Your task to perform on an android device: What's the weather going to be this weekend? Image 0: 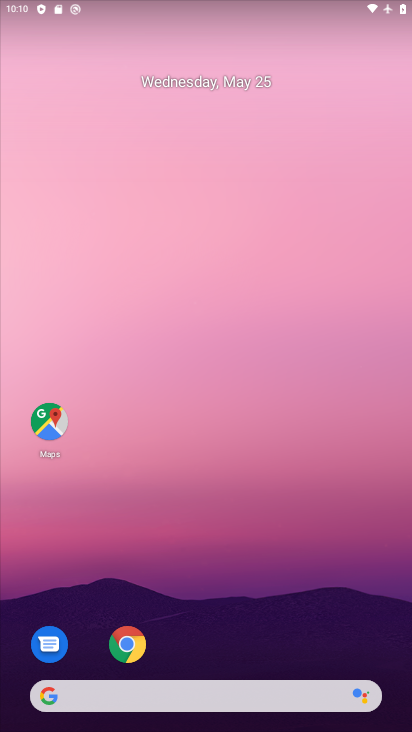
Step 0: drag from (228, 609) to (192, 157)
Your task to perform on an android device: What's the weather going to be this weekend? Image 1: 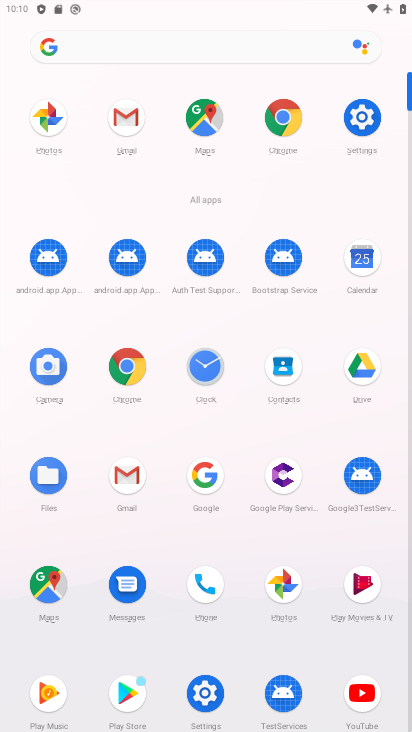
Step 1: click (209, 480)
Your task to perform on an android device: What's the weather going to be this weekend? Image 2: 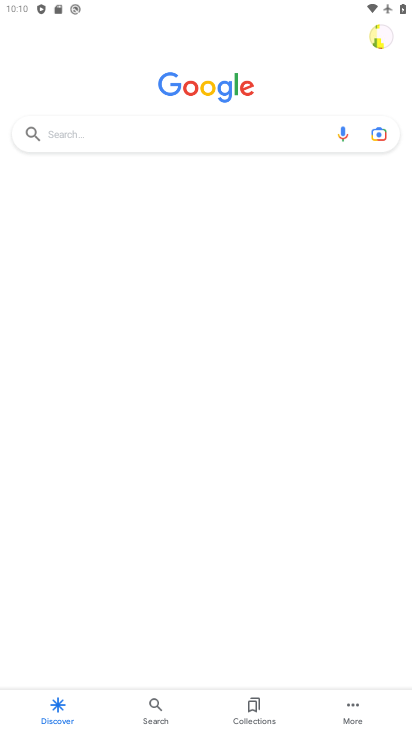
Step 2: click (135, 131)
Your task to perform on an android device: What's the weather going to be this weekend? Image 3: 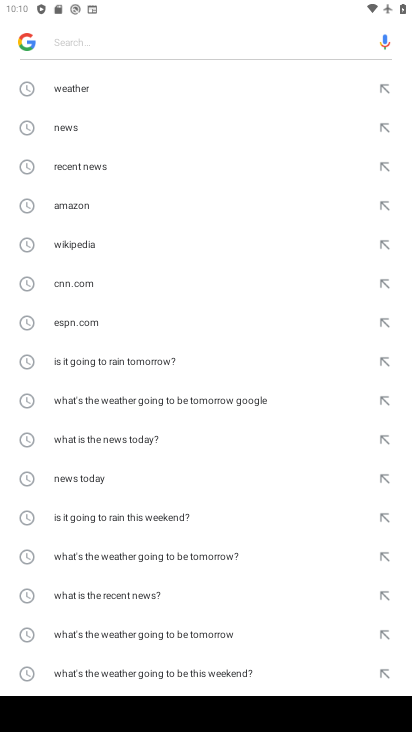
Step 3: click (188, 672)
Your task to perform on an android device: What's the weather going to be this weekend? Image 4: 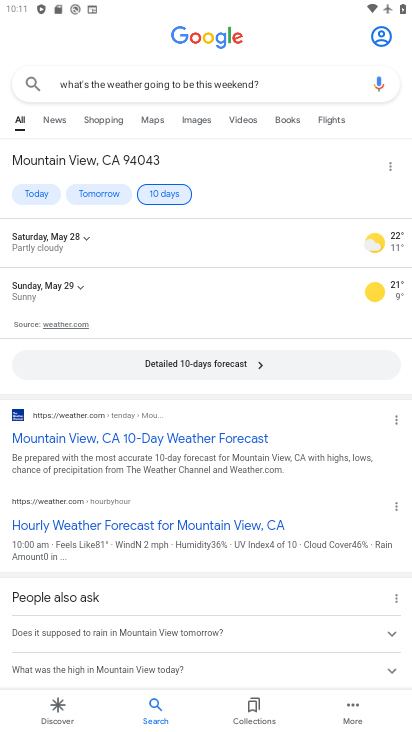
Step 4: task complete